Your task to perform on an android device: turn vacation reply on in the gmail app Image 0: 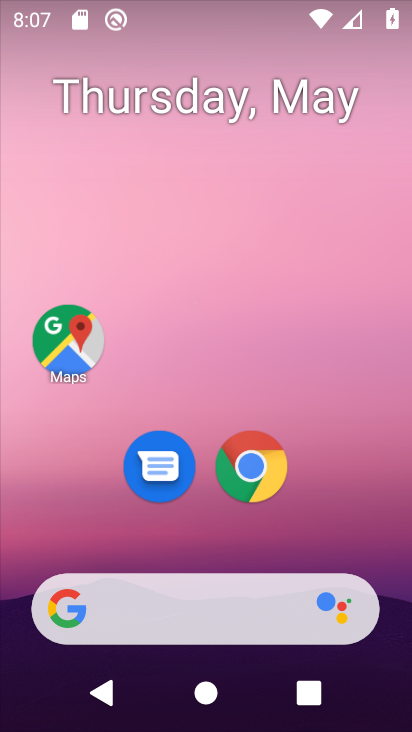
Step 0: drag from (366, 526) to (362, 216)
Your task to perform on an android device: turn vacation reply on in the gmail app Image 1: 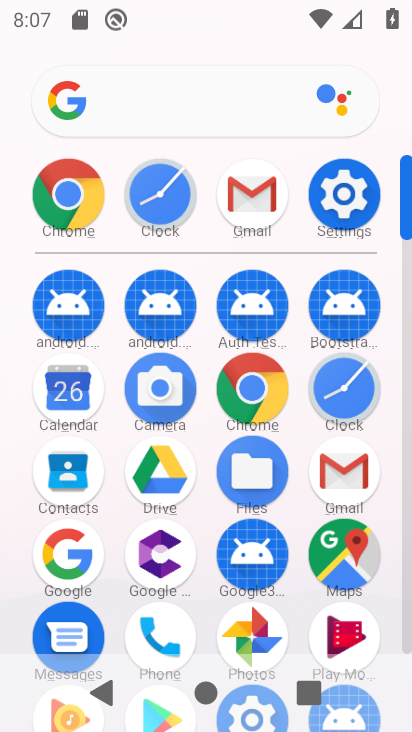
Step 1: click (275, 218)
Your task to perform on an android device: turn vacation reply on in the gmail app Image 2: 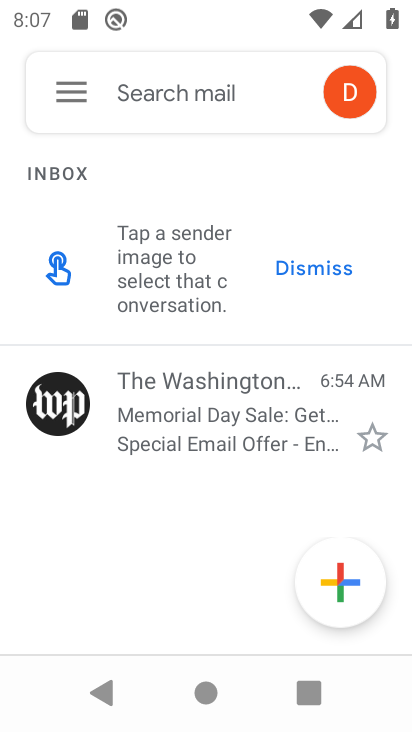
Step 2: click (78, 74)
Your task to perform on an android device: turn vacation reply on in the gmail app Image 3: 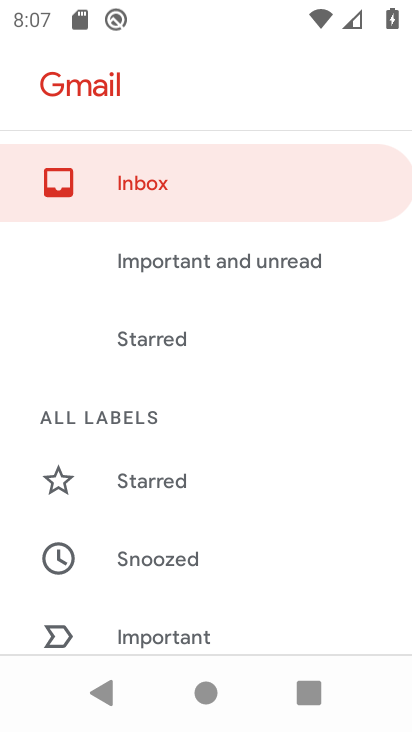
Step 3: drag from (170, 638) to (210, 195)
Your task to perform on an android device: turn vacation reply on in the gmail app Image 4: 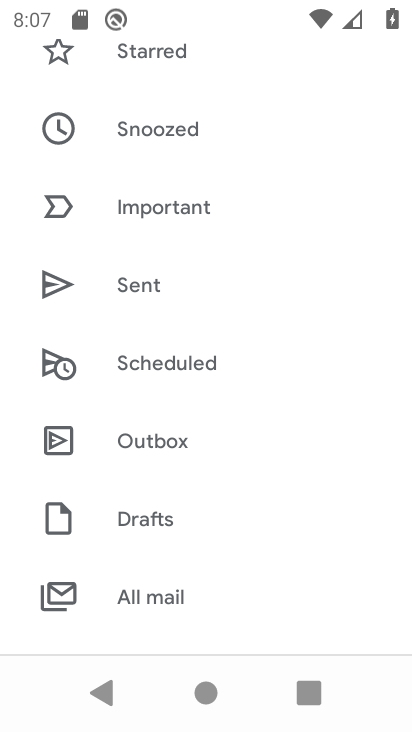
Step 4: drag from (226, 583) to (264, 118)
Your task to perform on an android device: turn vacation reply on in the gmail app Image 5: 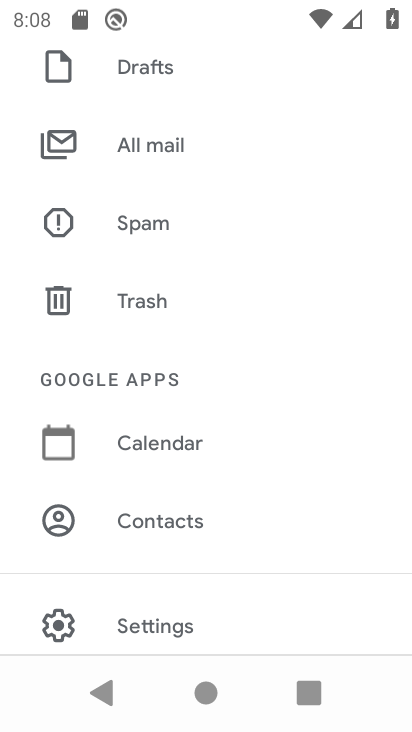
Step 5: click (165, 641)
Your task to perform on an android device: turn vacation reply on in the gmail app Image 6: 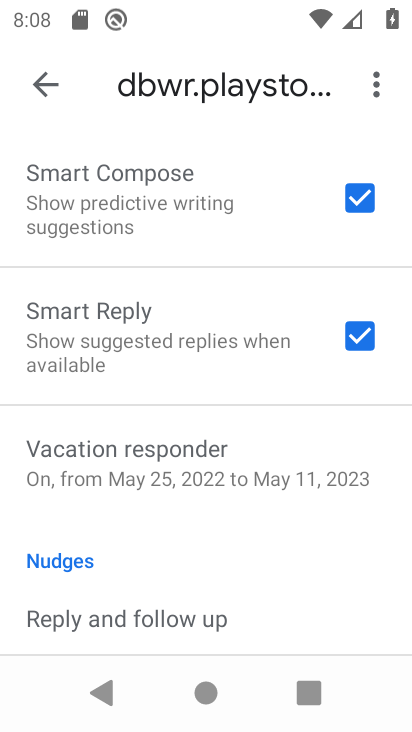
Step 6: click (161, 462)
Your task to perform on an android device: turn vacation reply on in the gmail app Image 7: 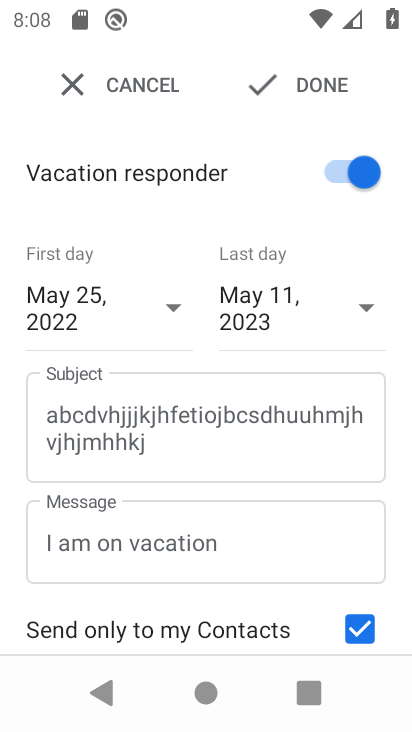
Step 7: click (317, 86)
Your task to perform on an android device: turn vacation reply on in the gmail app Image 8: 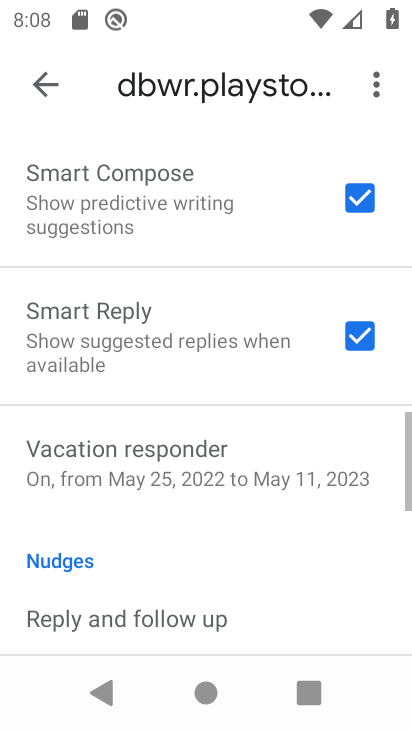
Step 8: task complete